Your task to perform on an android device: Search for pizza restaurants on Maps Image 0: 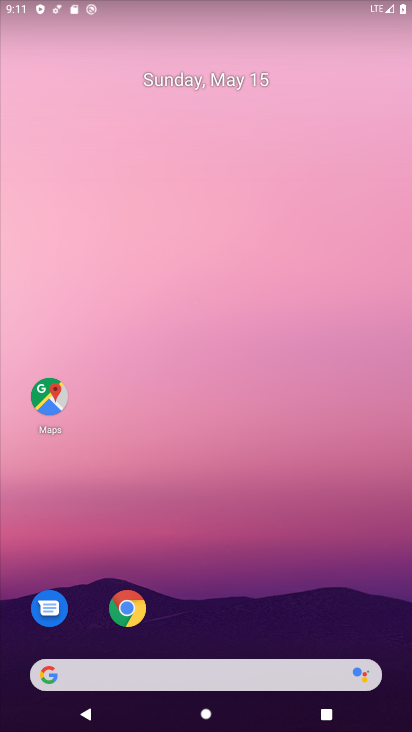
Step 0: drag from (323, 639) to (271, 109)
Your task to perform on an android device: Search for pizza restaurants on Maps Image 1: 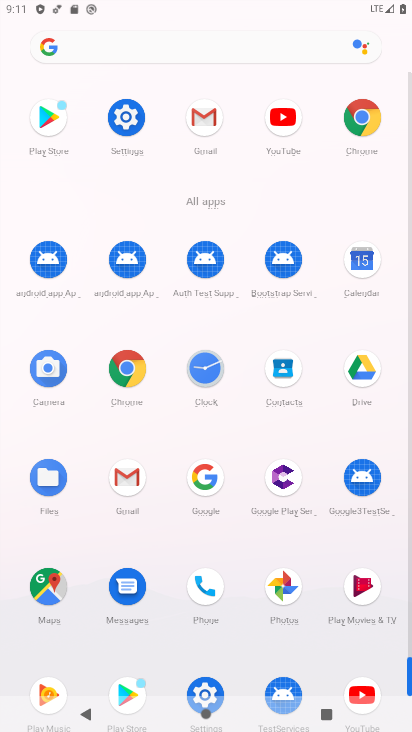
Step 1: click (64, 599)
Your task to perform on an android device: Search for pizza restaurants on Maps Image 2: 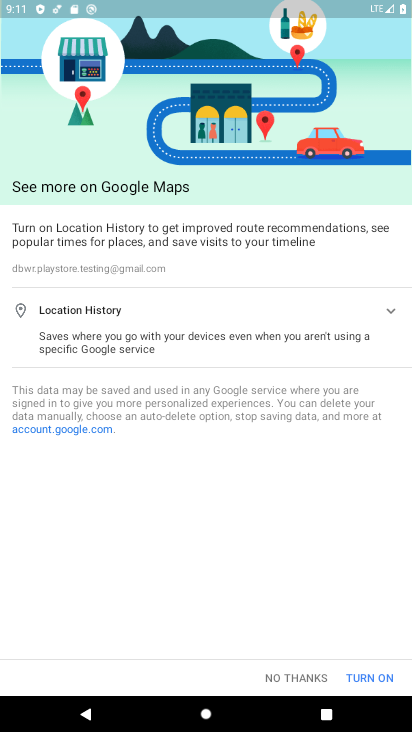
Step 2: click (278, 680)
Your task to perform on an android device: Search for pizza restaurants on Maps Image 3: 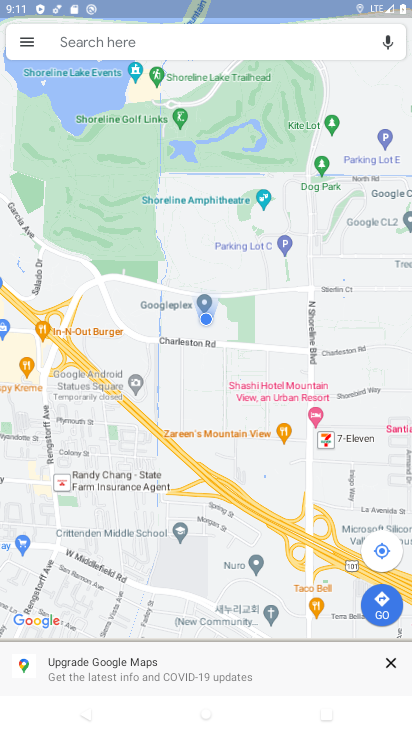
Step 3: click (107, 47)
Your task to perform on an android device: Search for pizza restaurants on Maps Image 4: 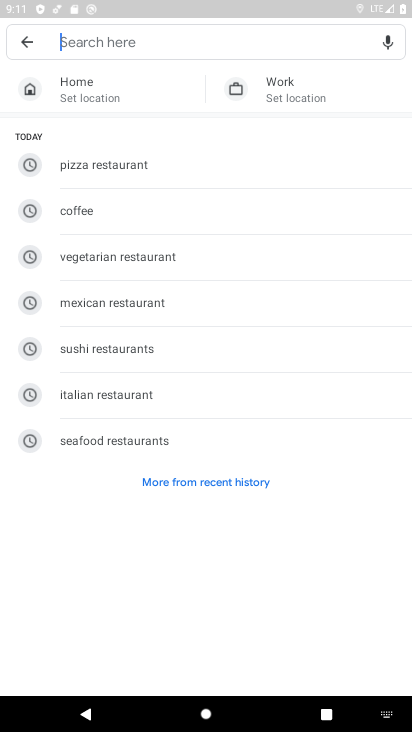
Step 4: click (126, 163)
Your task to perform on an android device: Search for pizza restaurants on Maps Image 5: 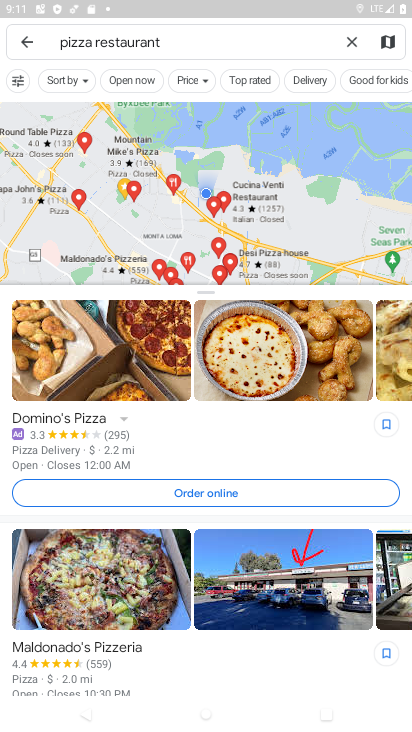
Step 5: task complete